Your task to perform on an android device: Open wifi settings Image 0: 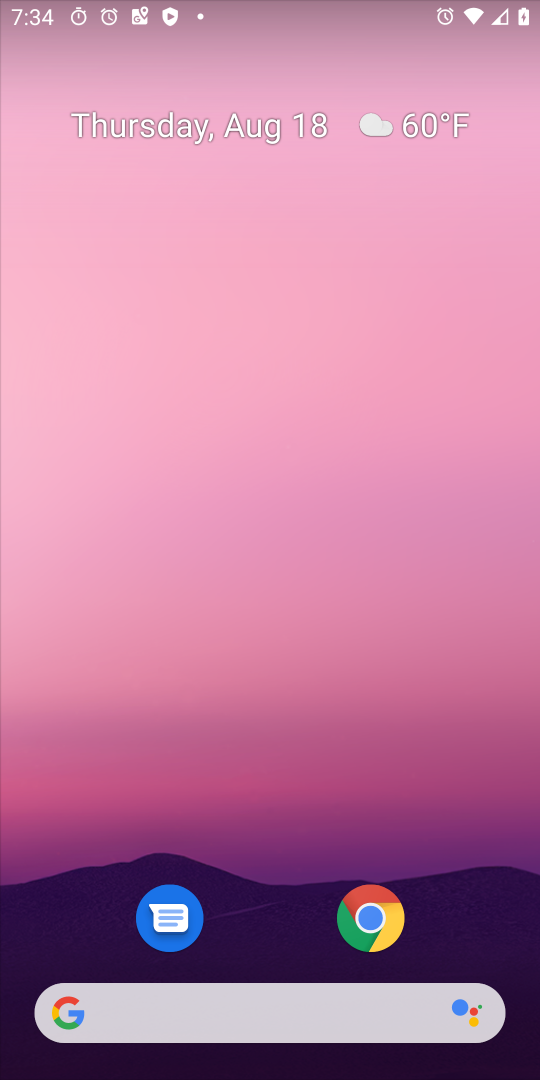
Step 0: drag from (268, 782) to (205, 0)
Your task to perform on an android device: Open wifi settings Image 1: 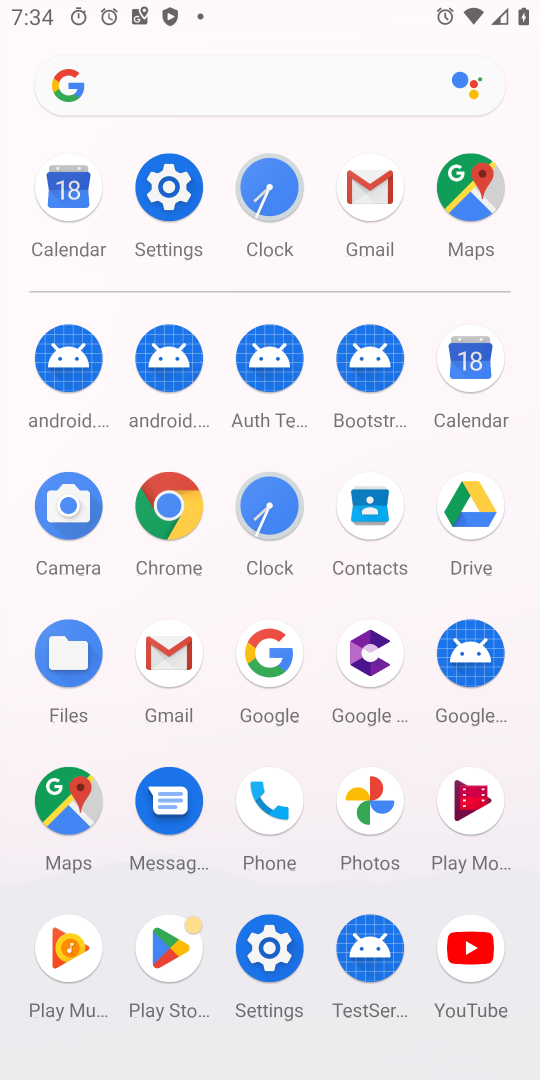
Step 1: click (171, 196)
Your task to perform on an android device: Open wifi settings Image 2: 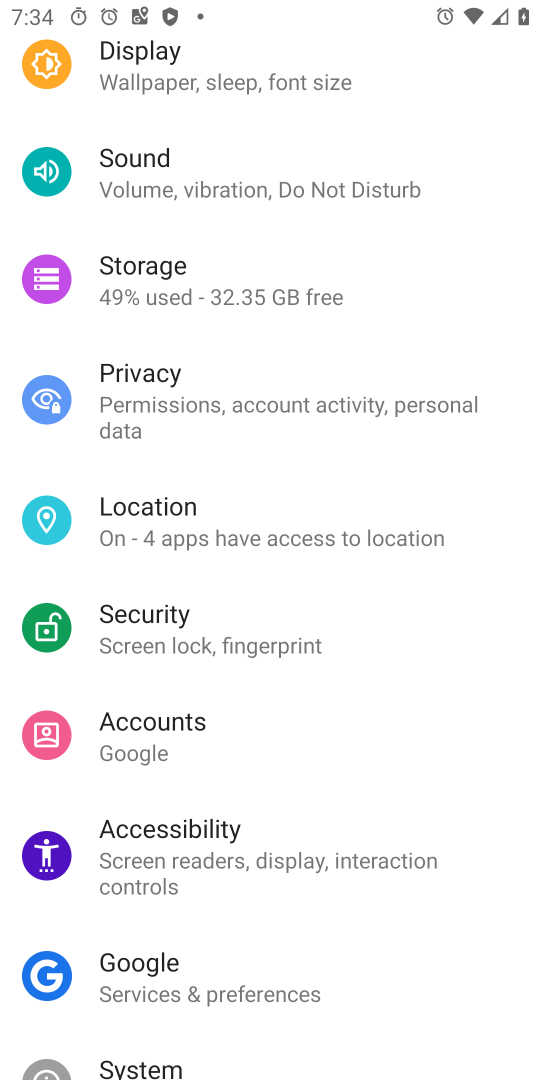
Step 2: drag from (318, 129) to (403, 1049)
Your task to perform on an android device: Open wifi settings Image 3: 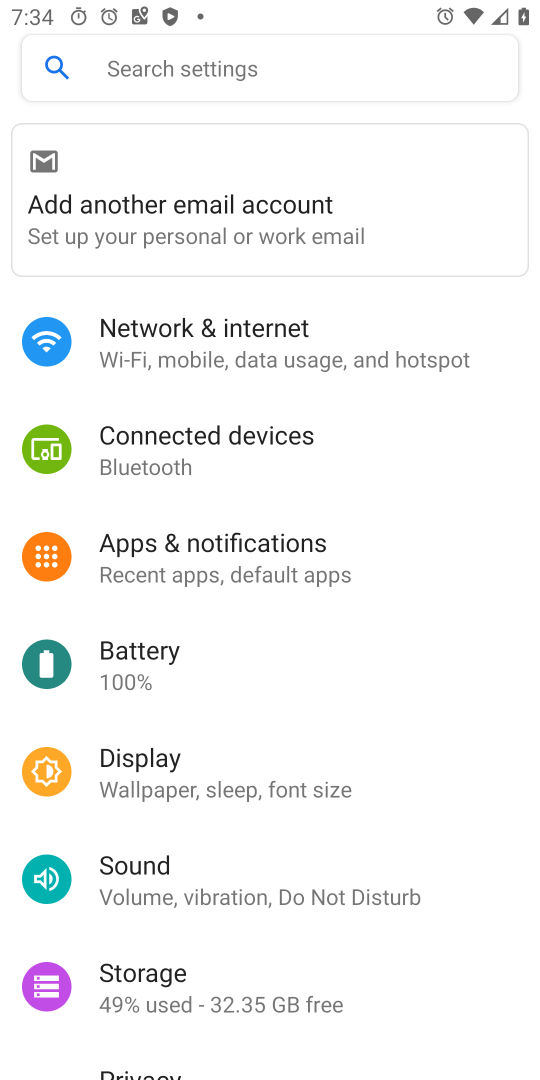
Step 3: click (212, 345)
Your task to perform on an android device: Open wifi settings Image 4: 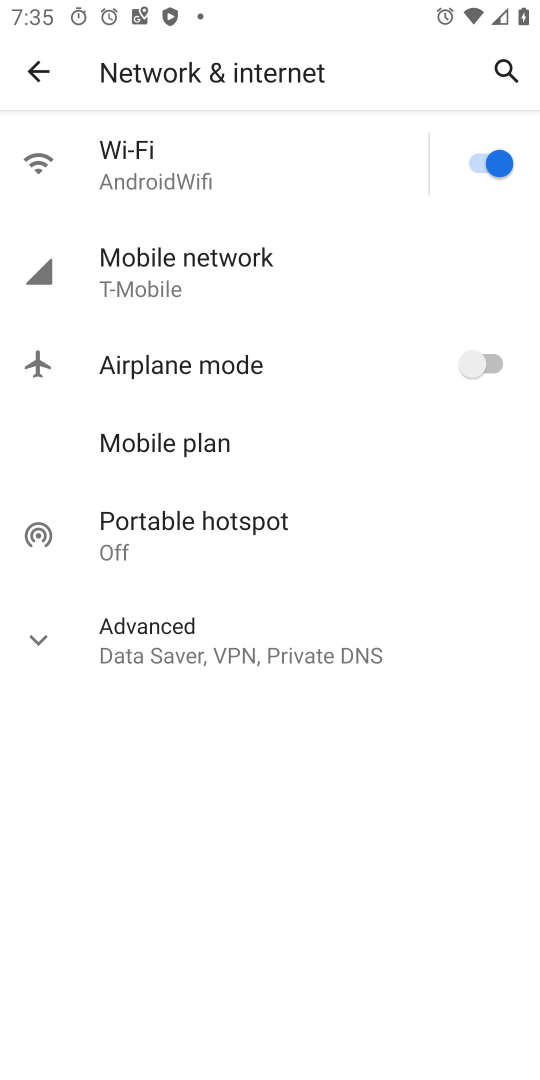
Step 4: task complete